Your task to perform on an android device: see sites visited before in the chrome app Image 0: 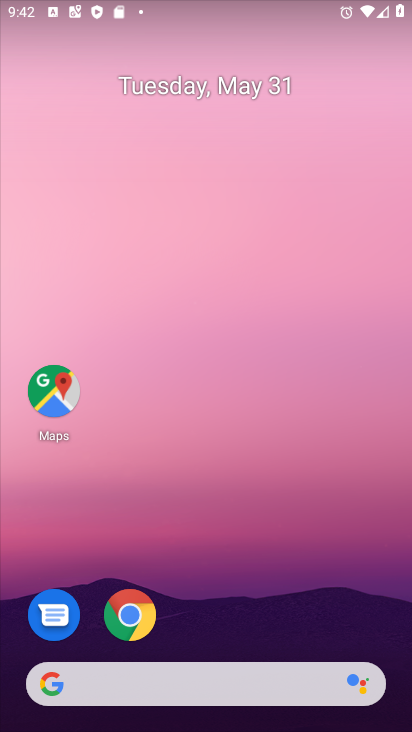
Step 0: click (130, 616)
Your task to perform on an android device: see sites visited before in the chrome app Image 1: 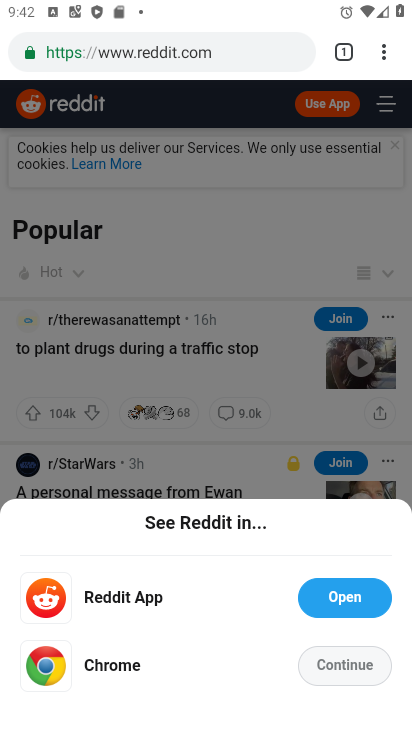
Step 1: click (381, 55)
Your task to perform on an android device: see sites visited before in the chrome app Image 2: 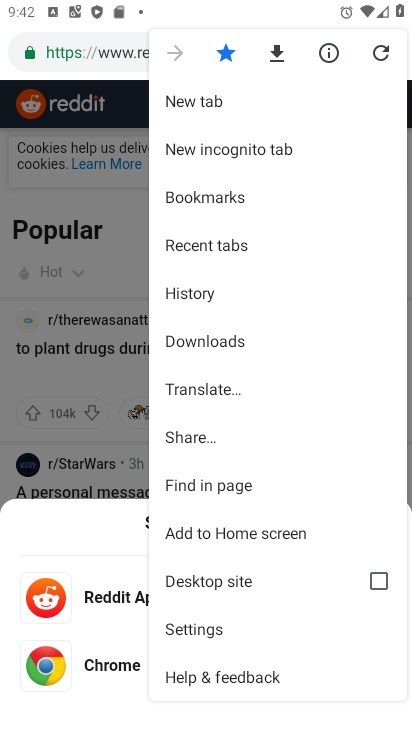
Step 2: click (199, 247)
Your task to perform on an android device: see sites visited before in the chrome app Image 3: 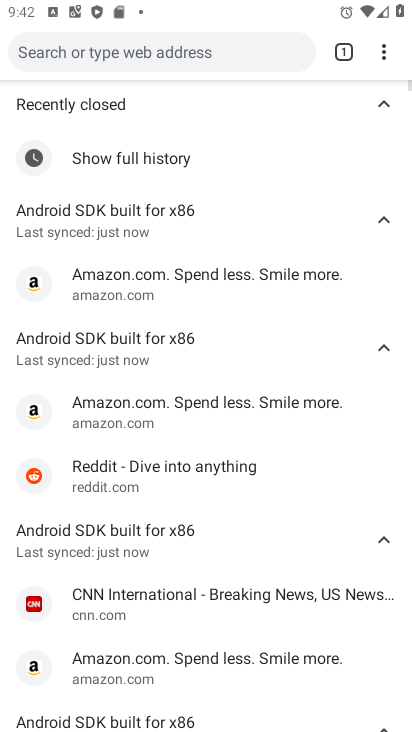
Step 3: task complete